Your task to perform on an android device: open app "Mercado Libre" Image 0: 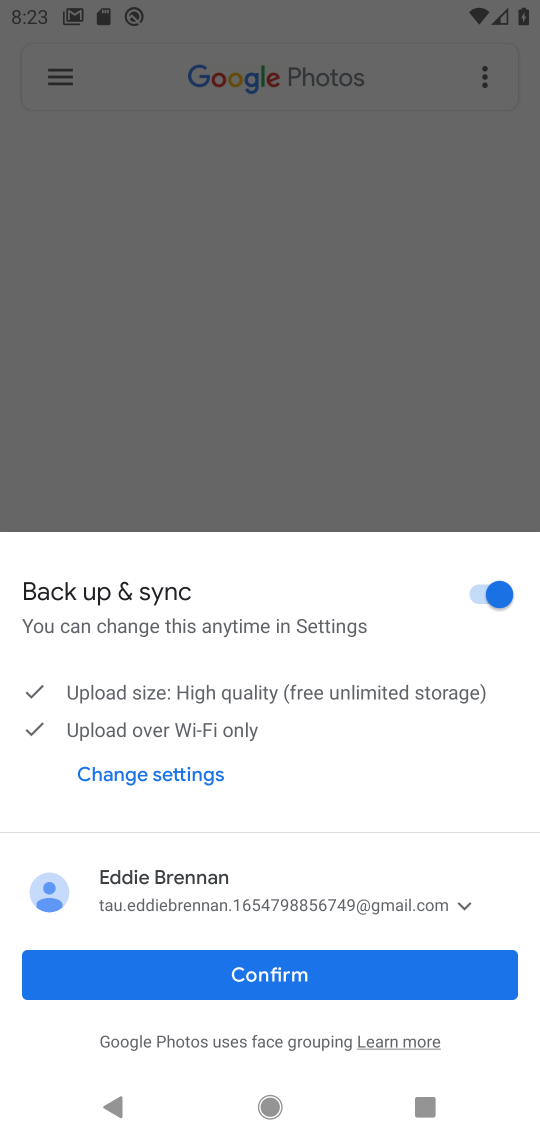
Step 0: press home button
Your task to perform on an android device: open app "Mercado Libre" Image 1: 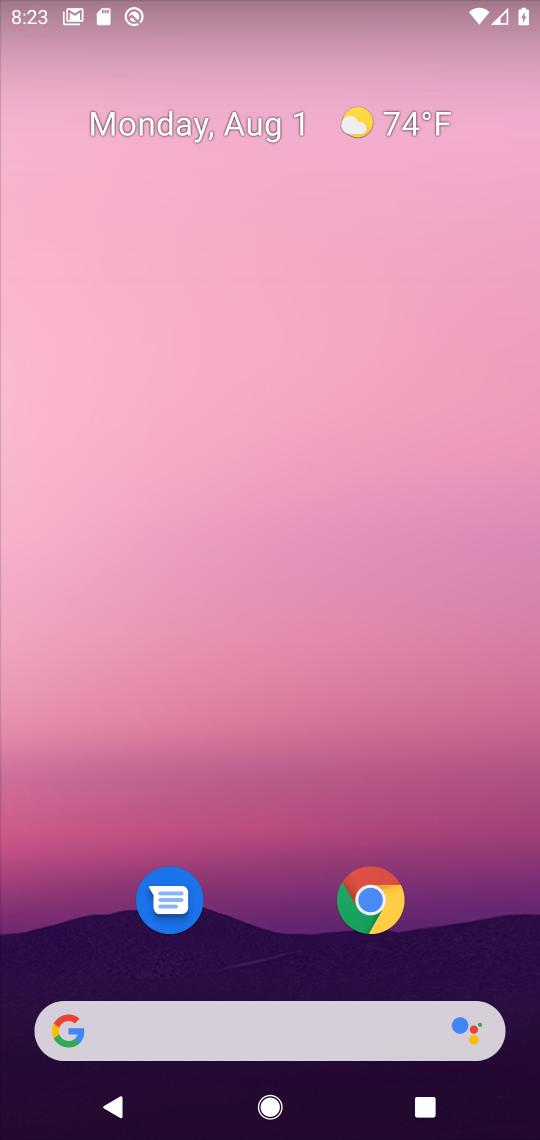
Step 1: drag from (327, 987) to (479, 34)
Your task to perform on an android device: open app "Mercado Libre" Image 2: 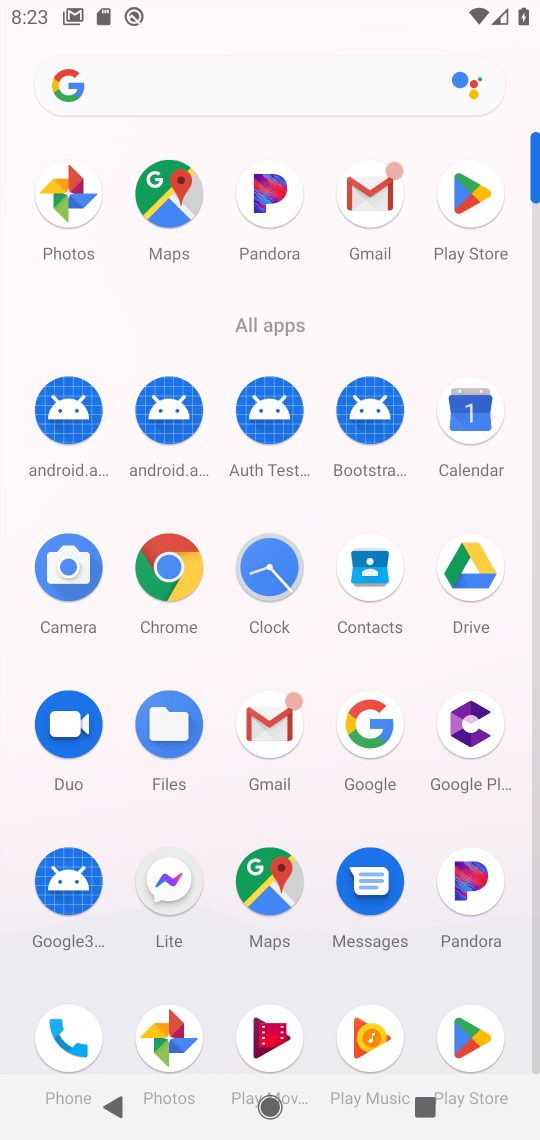
Step 2: click (453, 1026)
Your task to perform on an android device: open app "Mercado Libre" Image 3: 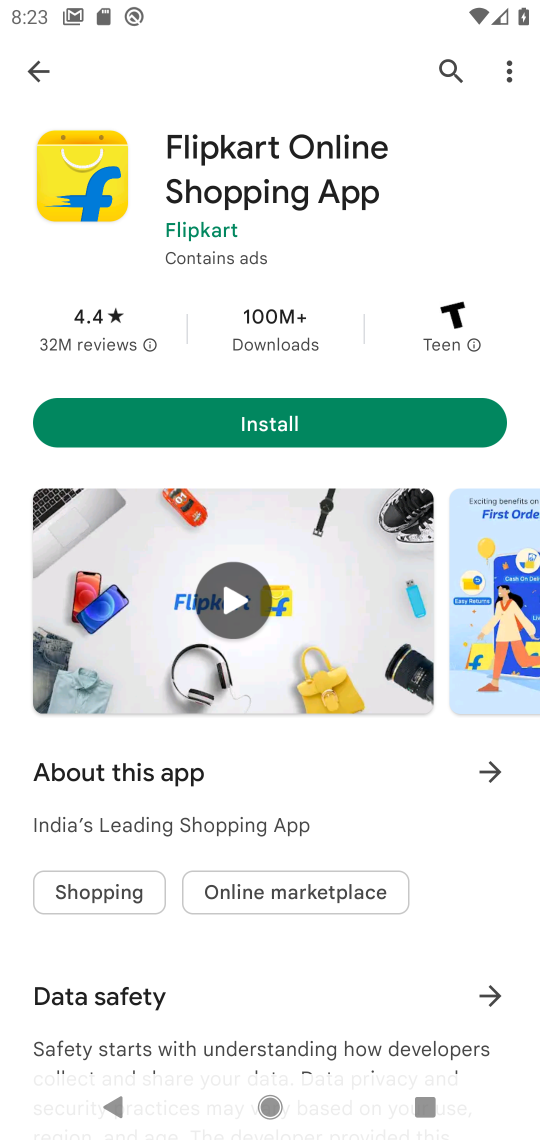
Step 3: click (32, 58)
Your task to perform on an android device: open app "Mercado Libre" Image 4: 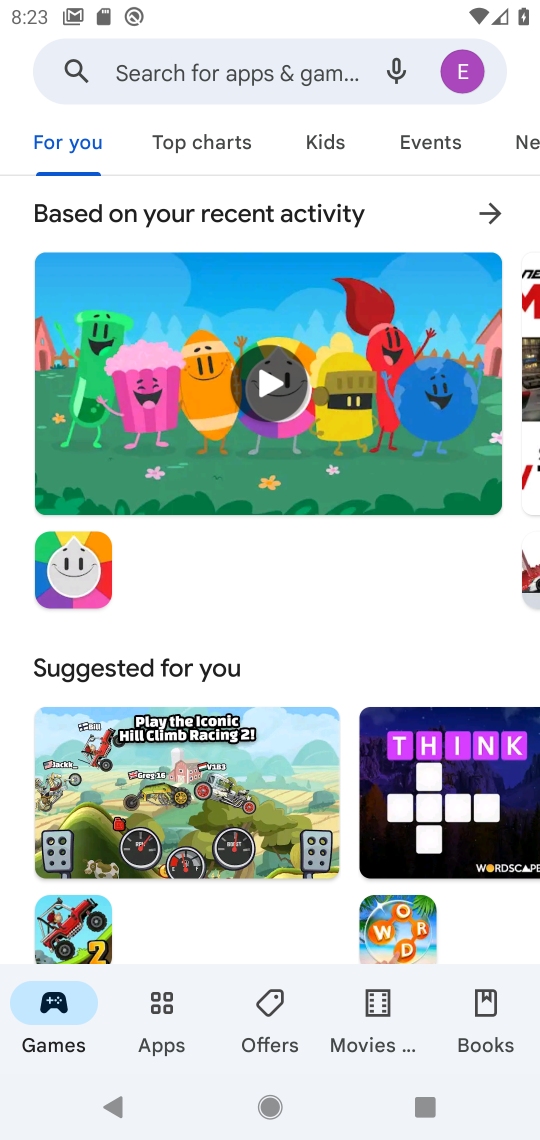
Step 4: click (164, 58)
Your task to perform on an android device: open app "Mercado Libre" Image 5: 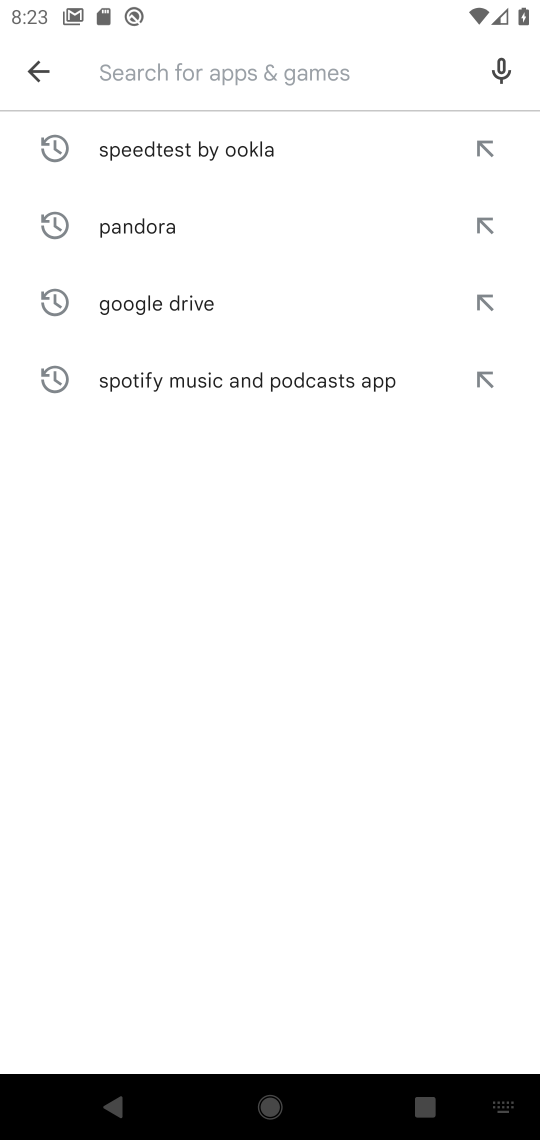
Step 5: type "Mercado Libre"
Your task to perform on an android device: open app "Mercado Libre" Image 6: 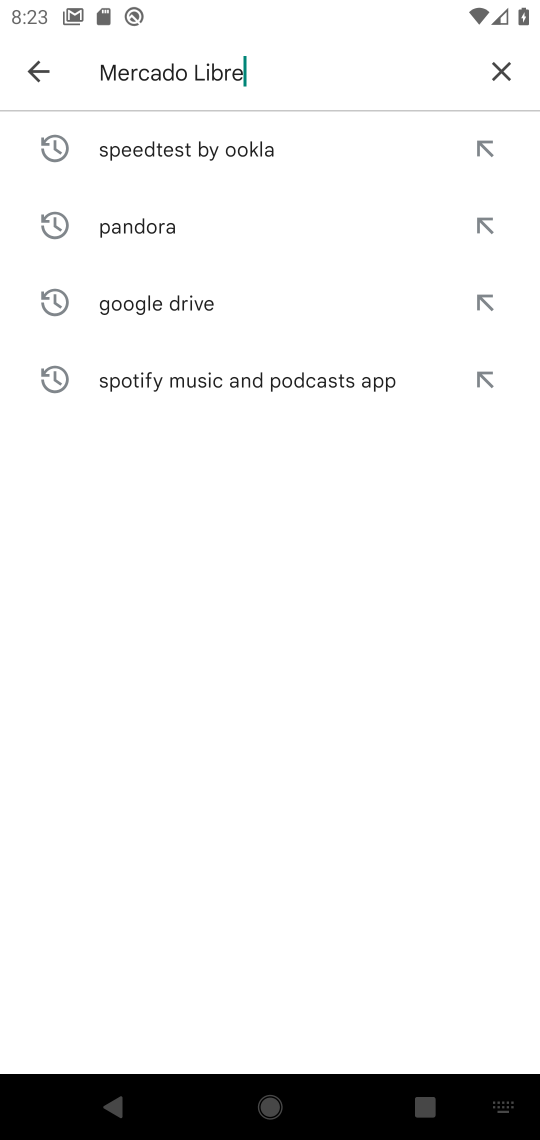
Step 6: type ""
Your task to perform on an android device: open app "Mercado Libre" Image 7: 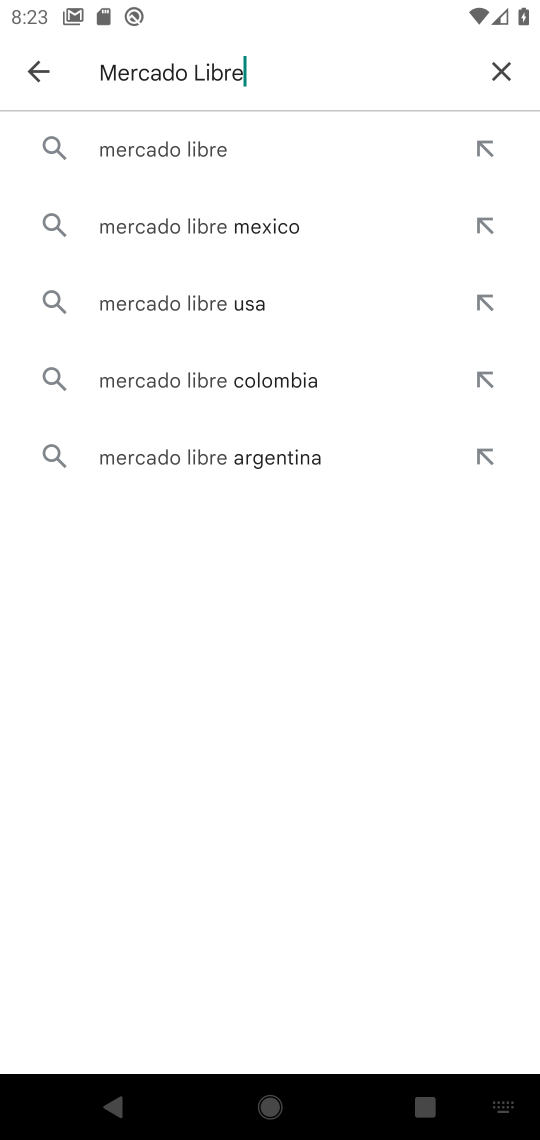
Step 7: click (179, 137)
Your task to perform on an android device: open app "Mercado Libre" Image 8: 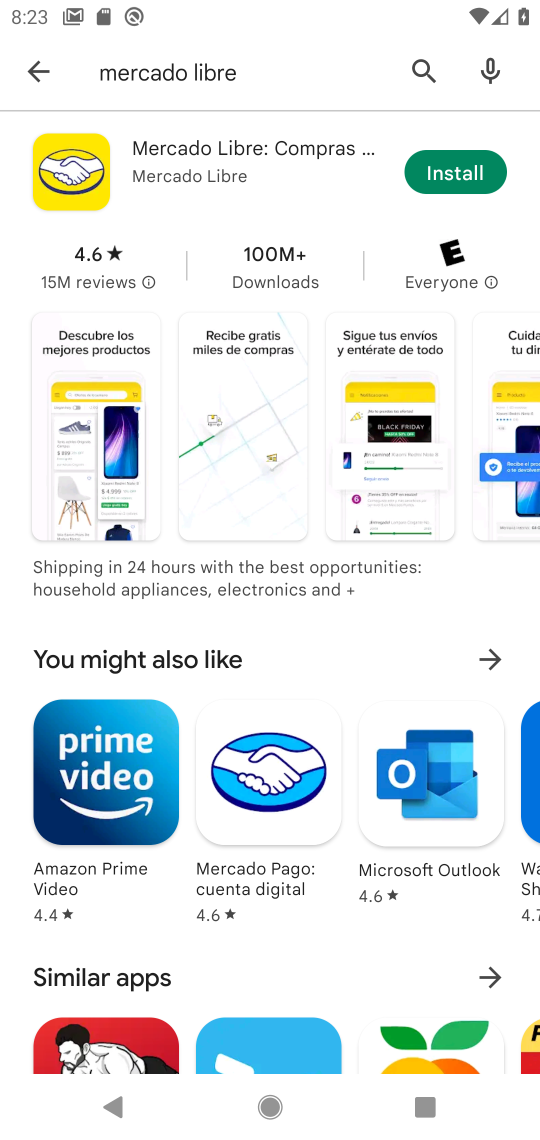
Step 8: task complete